Your task to perform on an android device: set the timer Image 0: 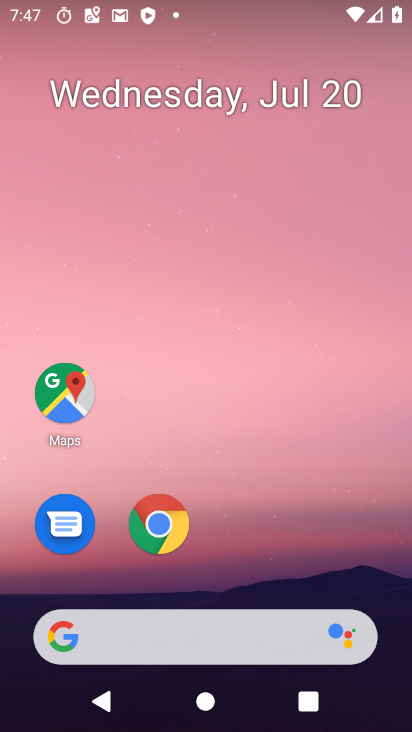
Step 0: drag from (189, 628) to (331, 263)
Your task to perform on an android device: set the timer Image 1: 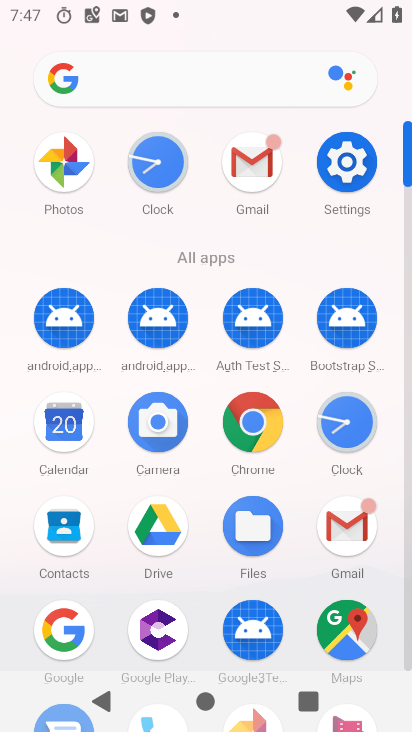
Step 1: click (343, 433)
Your task to perform on an android device: set the timer Image 2: 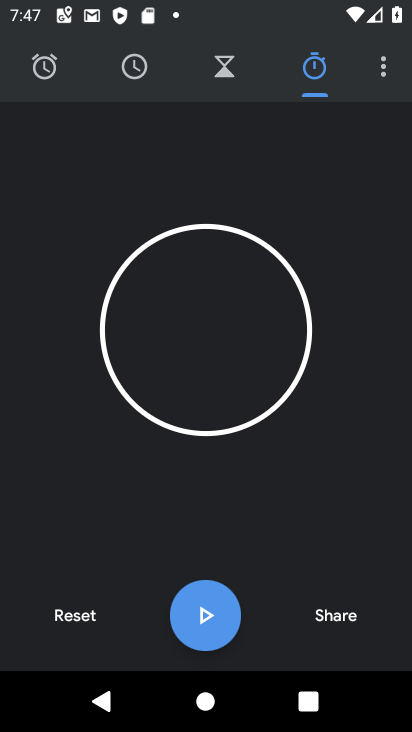
Step 2: click (222, 66)
Your task to perform on an android device: set the timer Image 3: 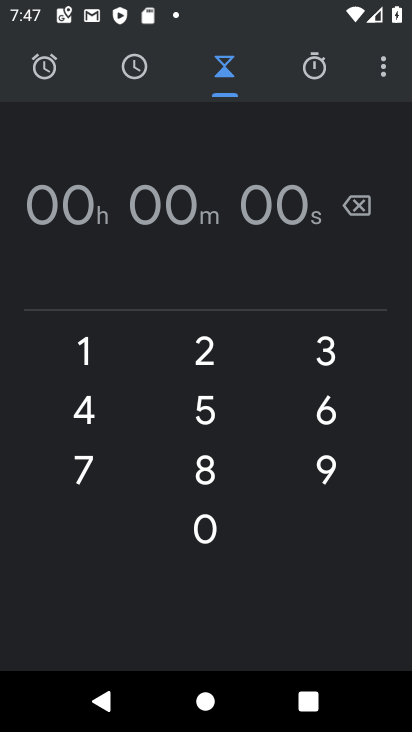
Step 3: click (214, 477)
Your task to perform on an android device: set the timer Image 4: 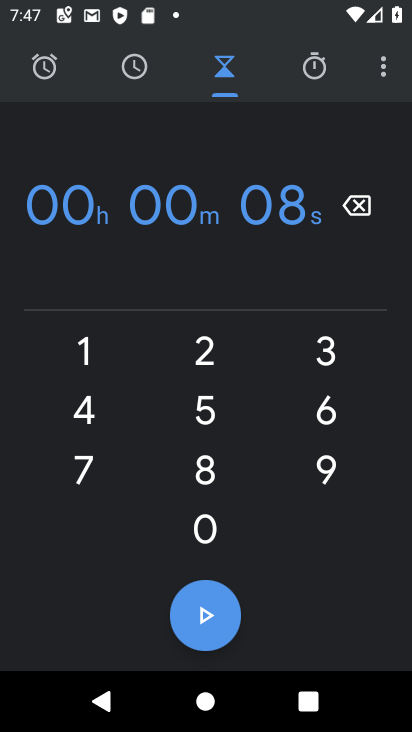
Step 4: click (79, 409)
Your task to perform on an android device: set the timer Image 5: 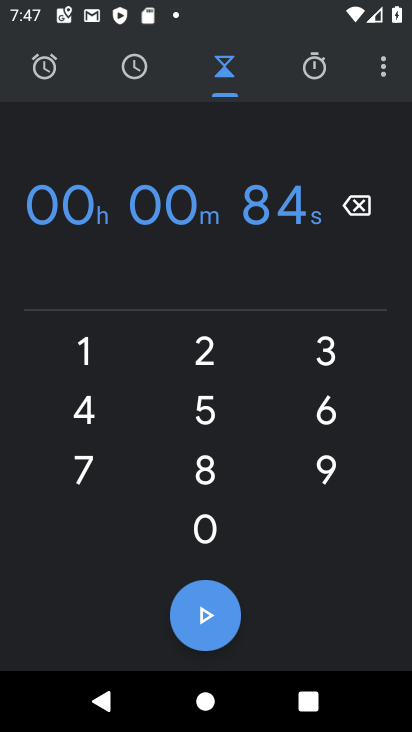
Step 5: click (219, 613)
Your task to perform on an android device: set the timer Image 6: 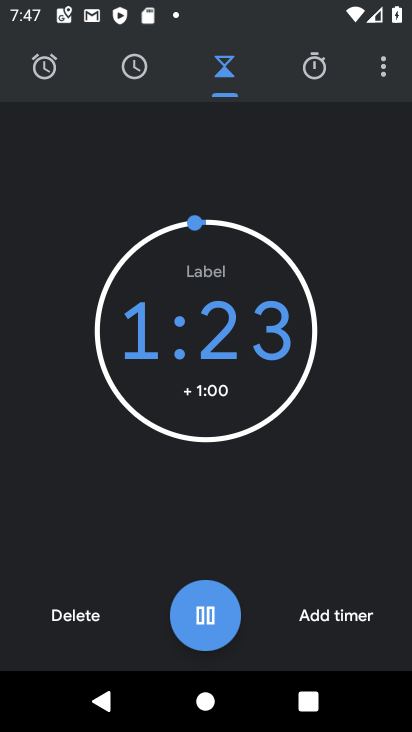
Step 6: click (213, 613)
Your task to perform on an android device: set the timer Image 7: 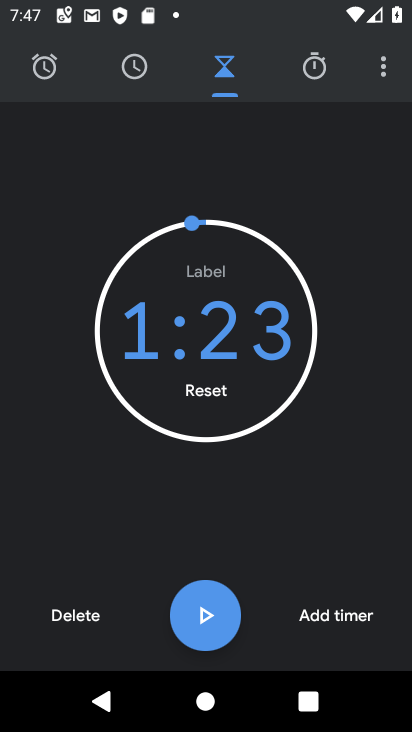
Step 7: task complete